Your task to perform on an android device: turn off priority inbox in the gmail app Image 0: 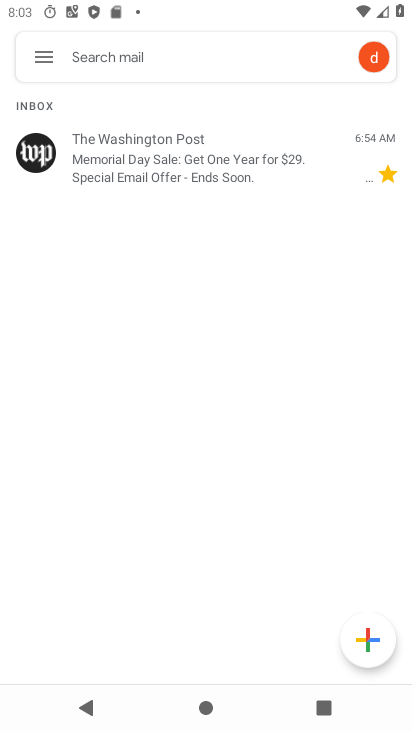
Step 0: press home button
Your task to perform on an android device: turn off priority inbox in the gmail app Image 1: 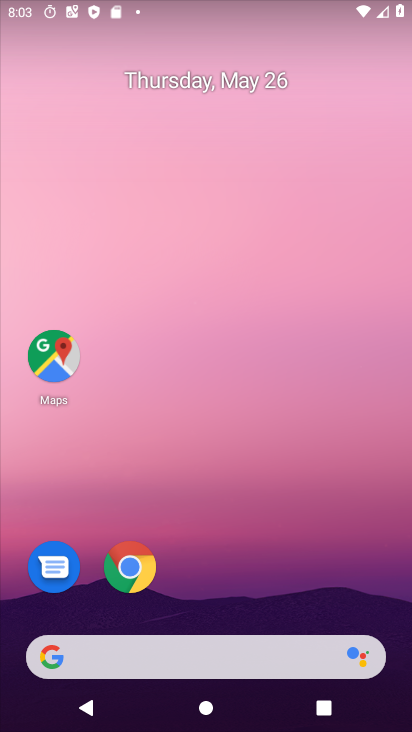
Step 1: drag from (120, 655) to (280, 85)
Your task to perform on an android device: turn off priority inbox in the gmail app Image 2: 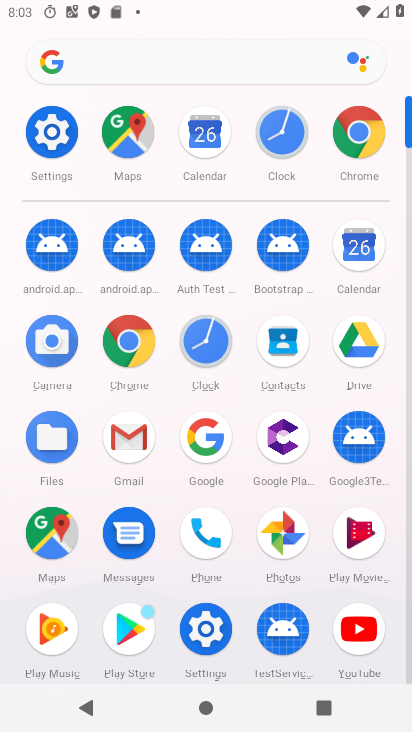
Step 2: click (129, 442)
Your task to perform on an android device: turn off priority inbox in the gmail app Image 3: 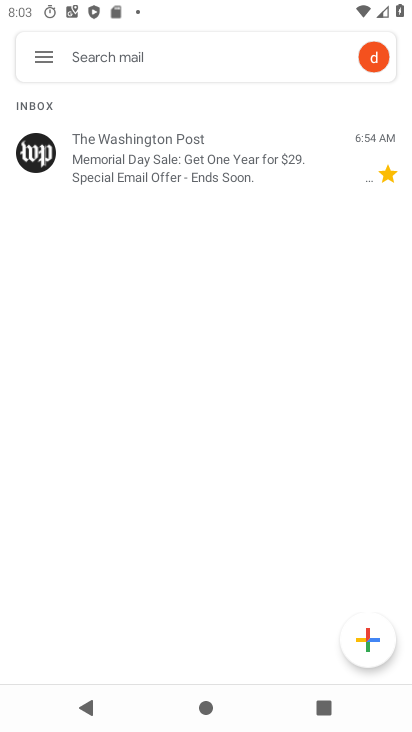
Step 3: click (47, 47)
Your task to perform on an android device: turn off priority inbox in the gmail app Image 4: 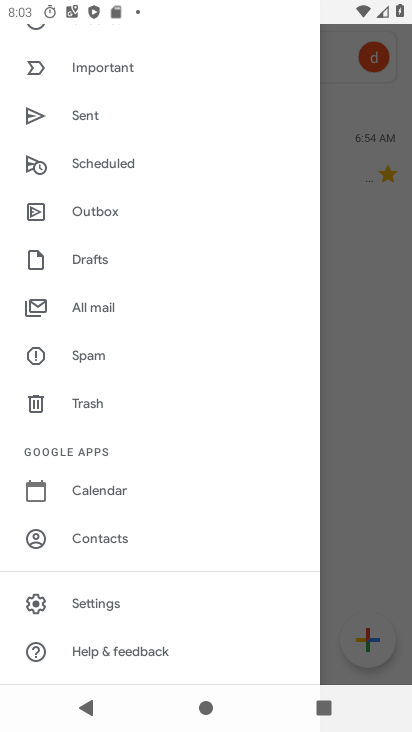
Step 4: click (116, 609)
Your task to perform on an android device: turn off priority inbox in the gmail app Image 5: 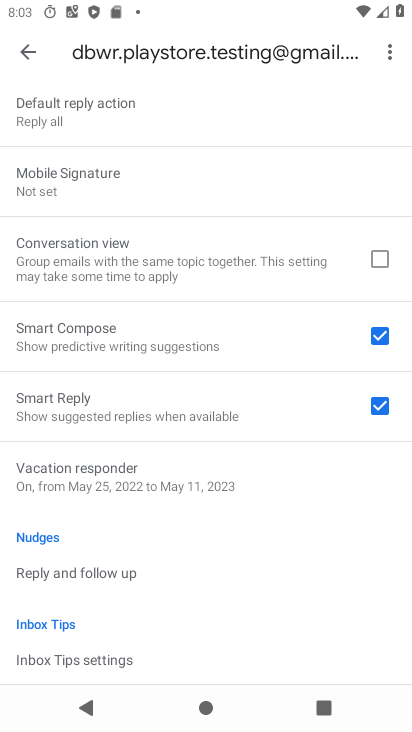
Step 5: drag from (248, 153) to (227, 612)
Your task to perform on an android device: turn off priority inbox in the gmail app Image 6: 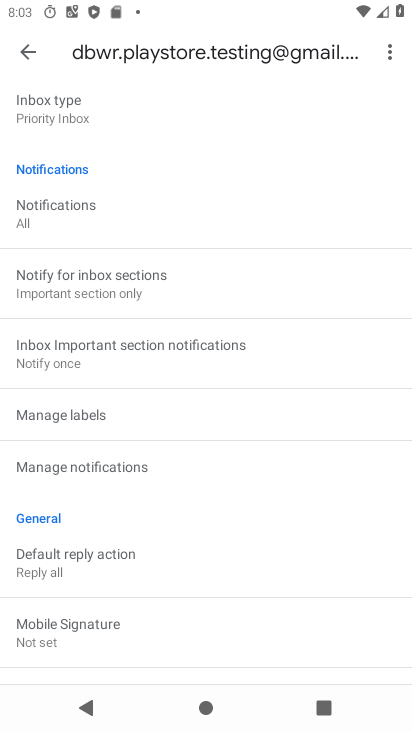
Step 6: click (61, 101)
Your task to perform on an android device: turn off priority inbox in the gmail app Image 7: 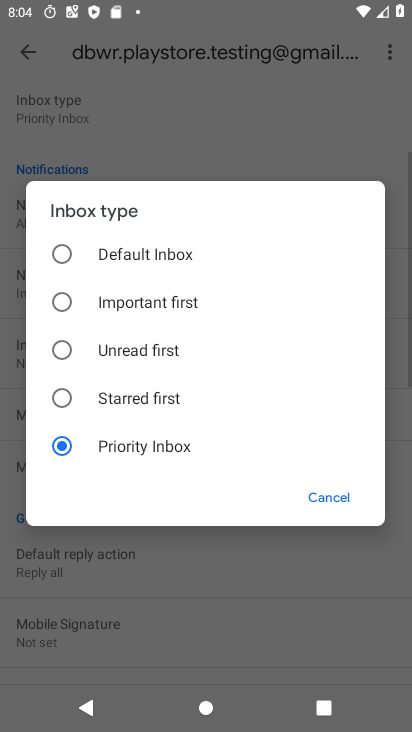
Step 7: click (60, 248)
Your task to perform on an android device: turn off priority inbox in the gmail app Image 8: 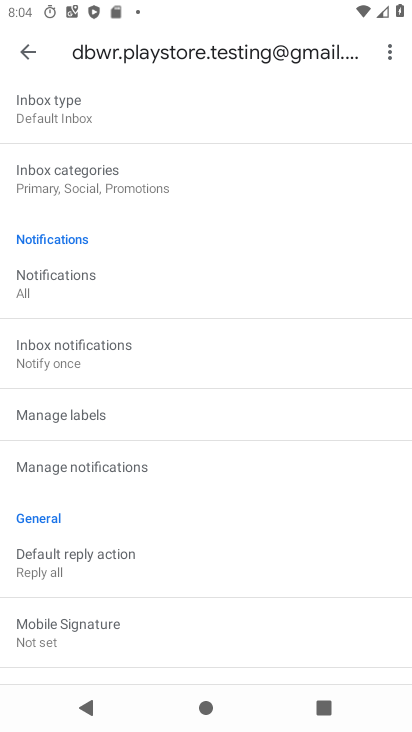
Step 8: task complete